Your task to perform on an android device: Open Chrome and go to settings Image 0: 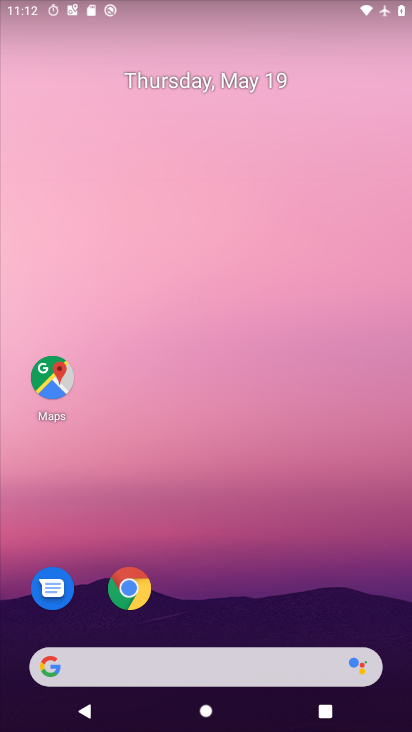
Step 0: press home button
Your task to perform on an android device: Open Chrome and go to settings Image 1: 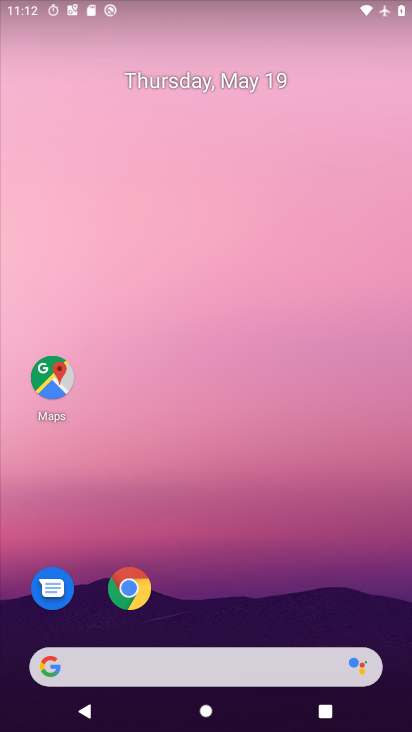
Step 1: click (133, 593)
Your task to perform on an android device: Open Chrome and go to settings Image 2: 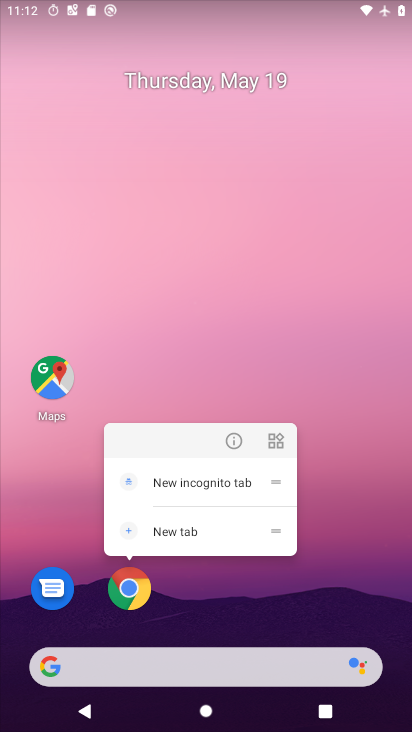
Step 2: click (122, 604)
Your task to perform on an android device: Open Chrome and go to settings Image 3: 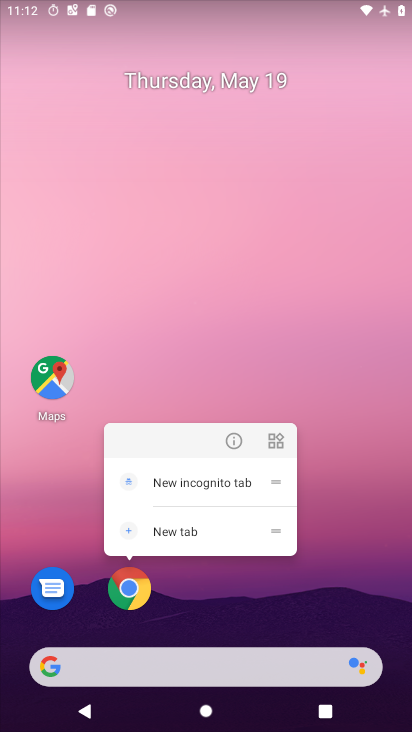
Step 3: click (128, 595)
Your task to perform on an android device: Open Chrome and go to settings Image 4: 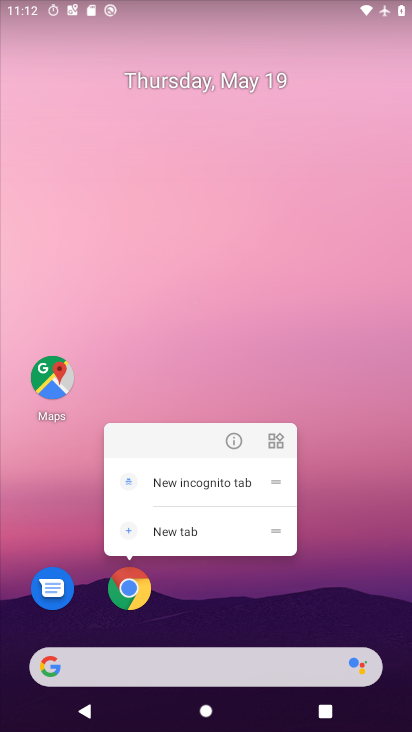
Step 4: click (139, 593)
Your task to perform on an android device: Open Chrome and go to settings Image 5: 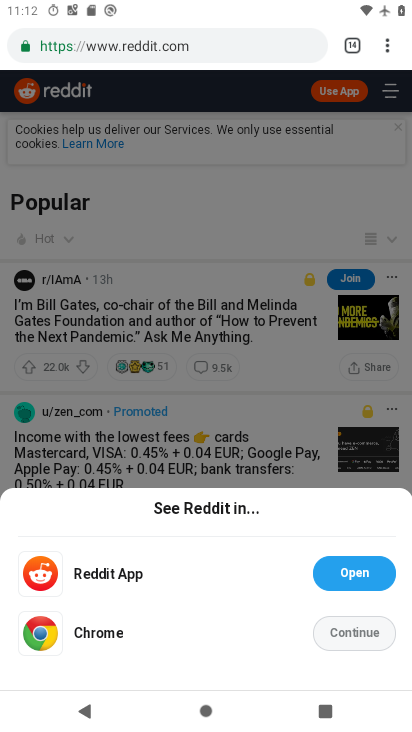
Step 5: task complete